Your task to perform on an android device: Go to settings Image 0: 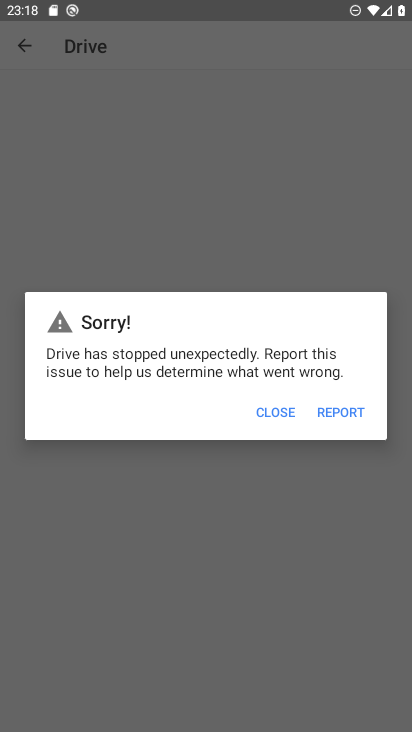
Step 0: press home button
Your task to perform on an android device: Go to settings Image 1: 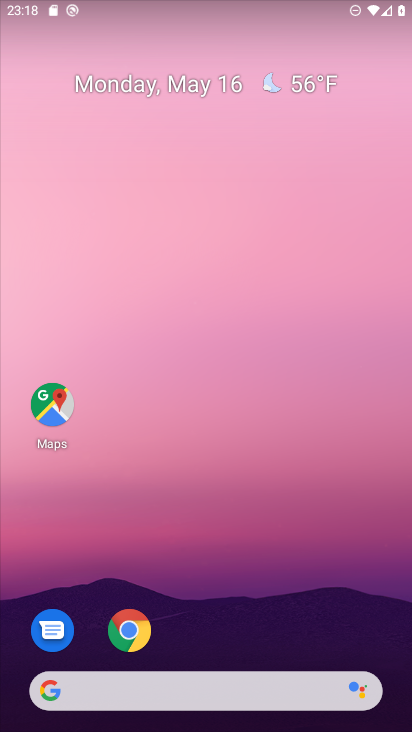
Step 1: drag from (239, 553) to (303, 30)
Your task to perform on an android device: Go to settings Image 2: 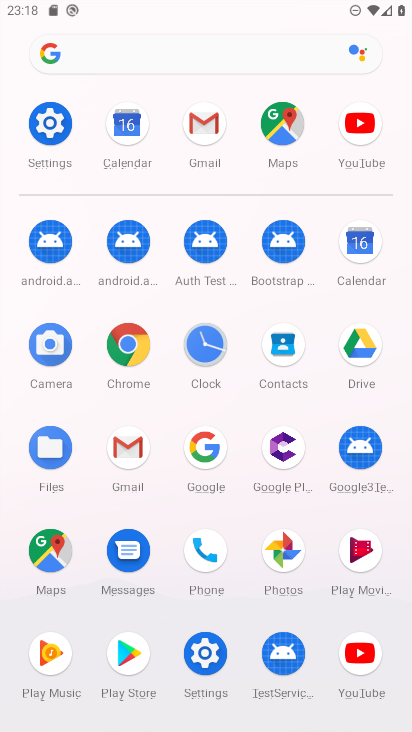
Step 2: click (49, 117)
Your task to perform on an android device: Go to settings Image 3: 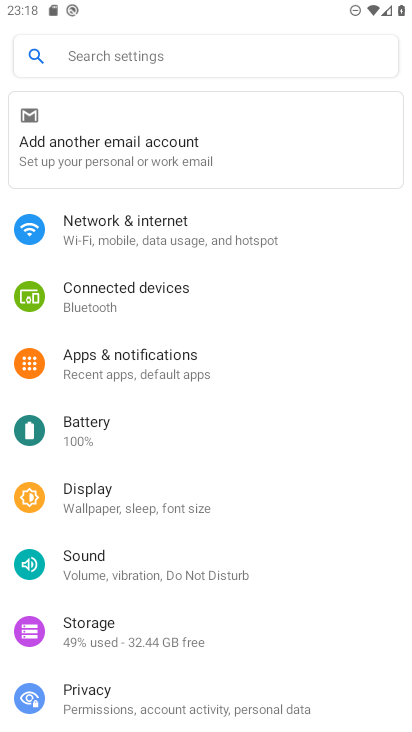
Step 3: task complete